Your task to perform on an android device: Open calendar and show me the third week of next month Image 0: 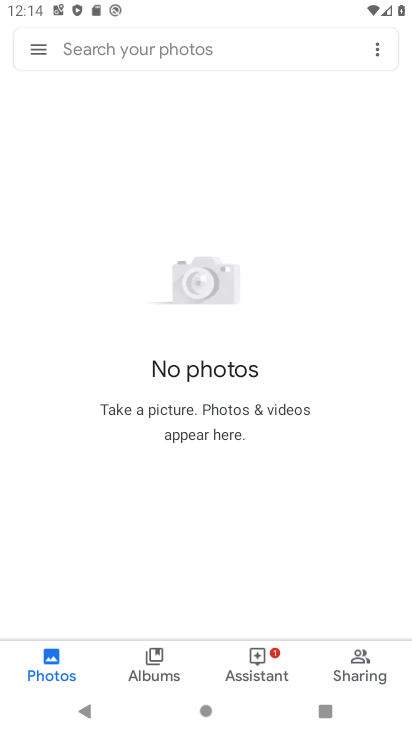
Step 0: press home button
Your task to perform on an android device: Open calendar and show me the third week of next month Image 1: 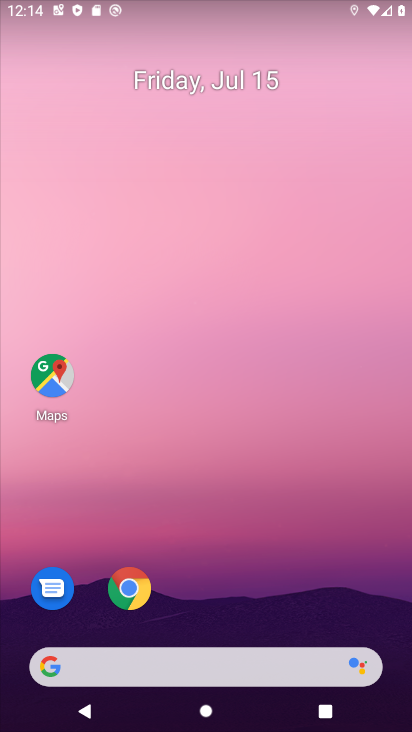
Step 1: drag from (110, 549) to (197, 182)
Your task to perform on an android device: Open calendar and show me the third week of next month Image 2: 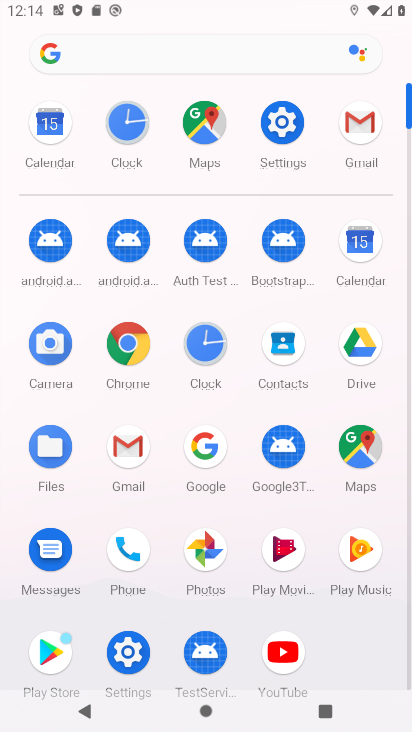
Step 2: click (351, 243)
Your task to perform on an android device: Open calendar and show me the third week of next month Image 3: 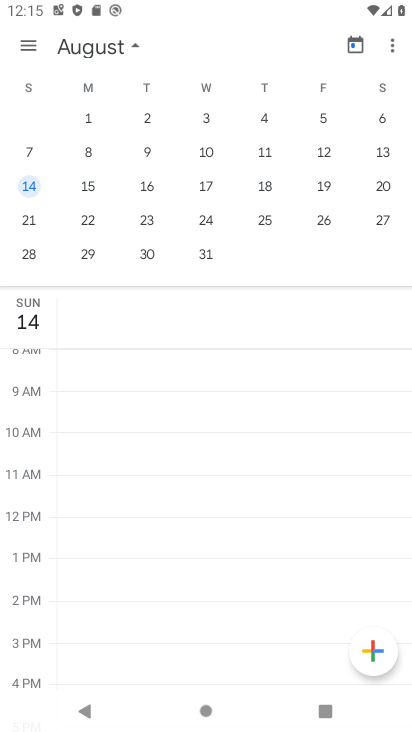
Step 3: click (29, 192)
Your task to perform on an android device: Open calendar and show me the third week of next month Image 4: 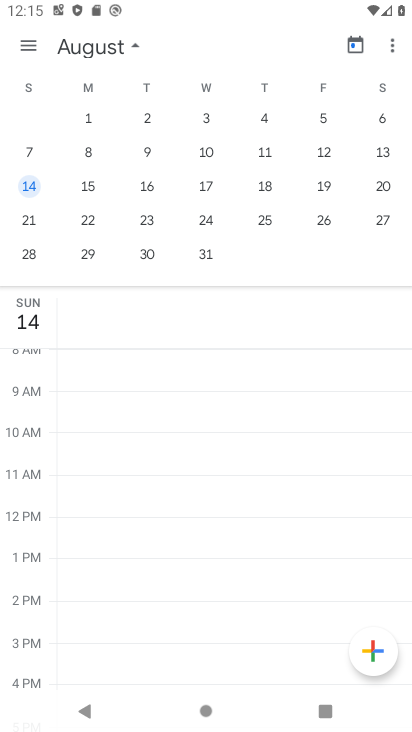
Step 4: task complete